Your task to perform on an android device: set the stopwatch Image 0: 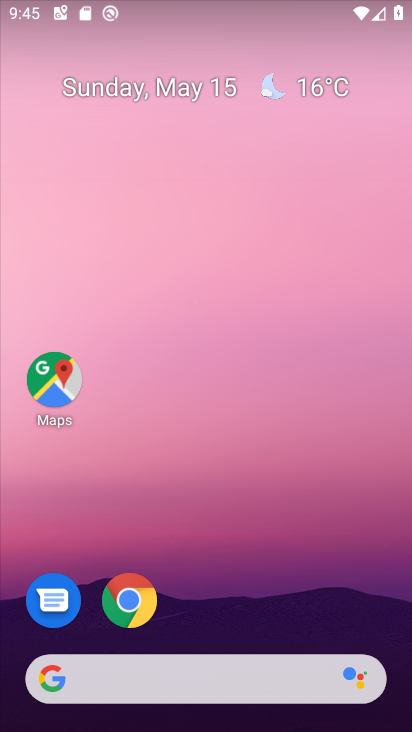
Step 0: drag from (205, 588) to (103, 3)
Your task to perform on an android device: set the stopwatch Image 1: 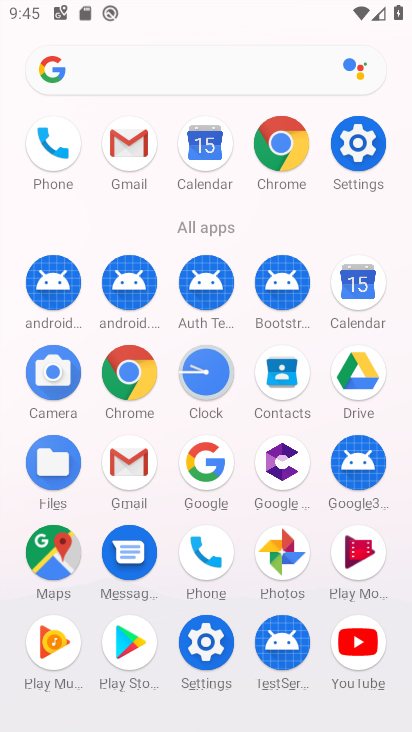
Step 1: click (214, 377)
Your task to perform on an android device: set the stopwatch Image 2: 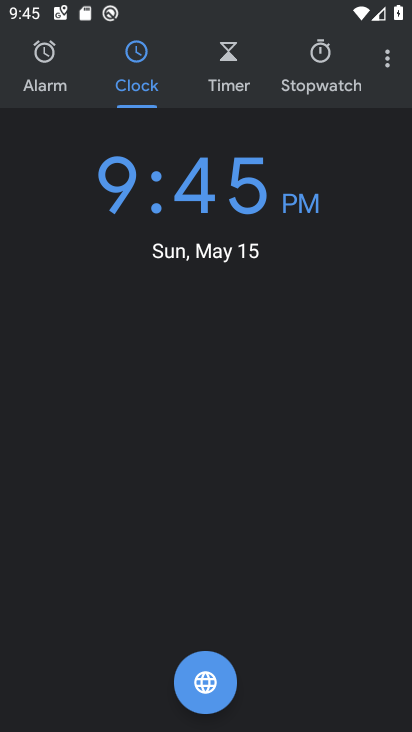
Step 2: click (303, 72)
Your task to perform on an android device: set the stopwatch Image 3: 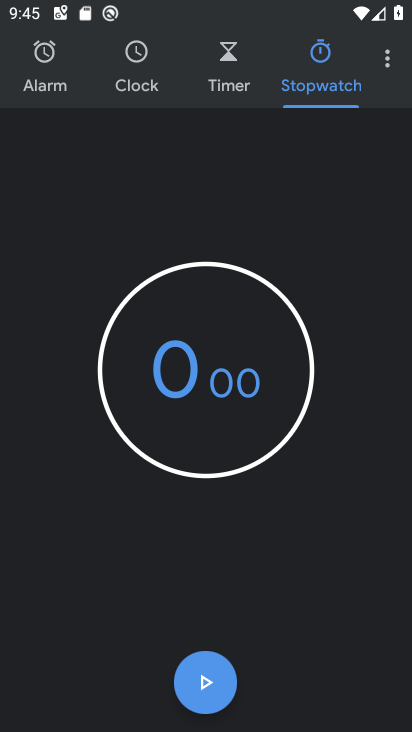
Step 3: click (211, 654)
Your task to perform on an android device: set the stopwatch Image 4: 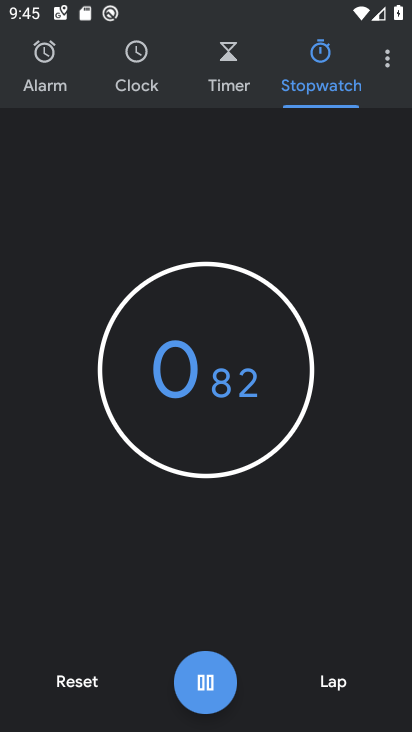
Step 4: click (212, 654)
Your task to perform on an android device: set the stopwatch Image 5: 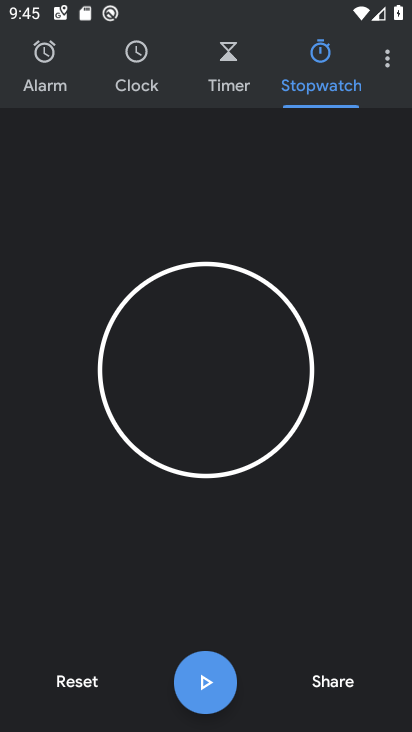
Step 5: task complete